Your task to perform on an android device: delete the emails in spam in the gmail app Image 0: 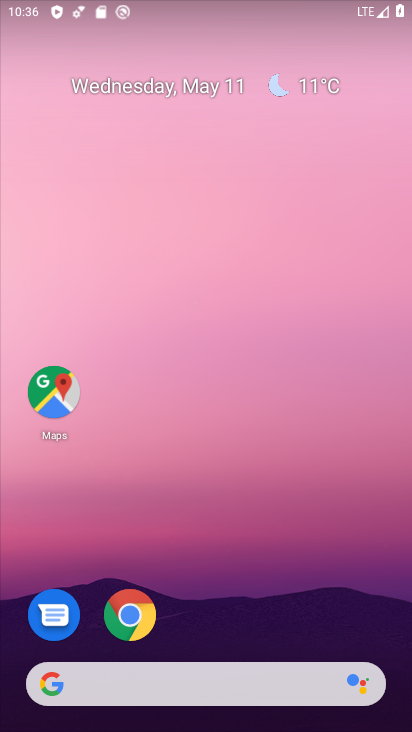
Step 0: drag from (293, 569) to (259, 90)
Your task to perform on an android device: delete the emails in spam in the gmail app Image 1: 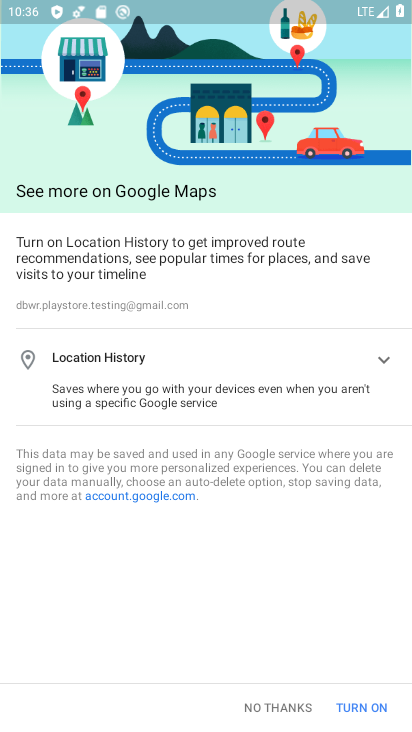
Step 1: press home button
Your task to perform on an android device: delete the emails in spam in the gmail app Image 2: 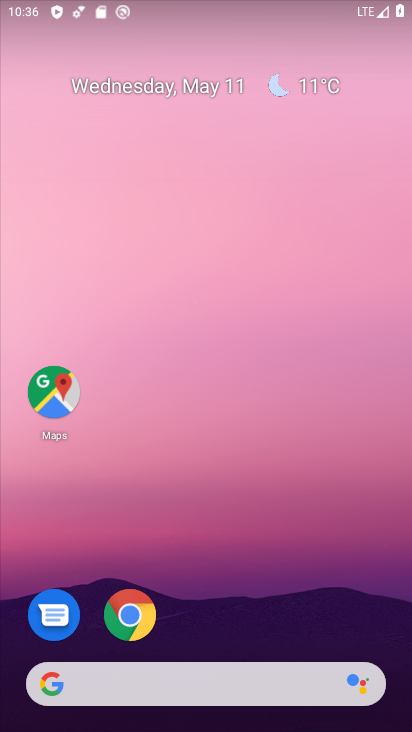
Step 2: drag from (248, 616) to (227, 109)
Your task to perform on an android device: delete the emails in spam in the gmail app Image 3: 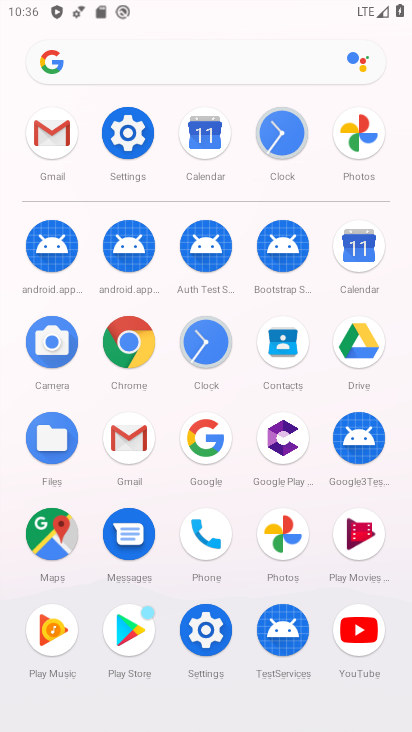
Step 3: click (133, 436)
Your task to perform on an android device: delete the emails in spam in the gmail app Image 4: 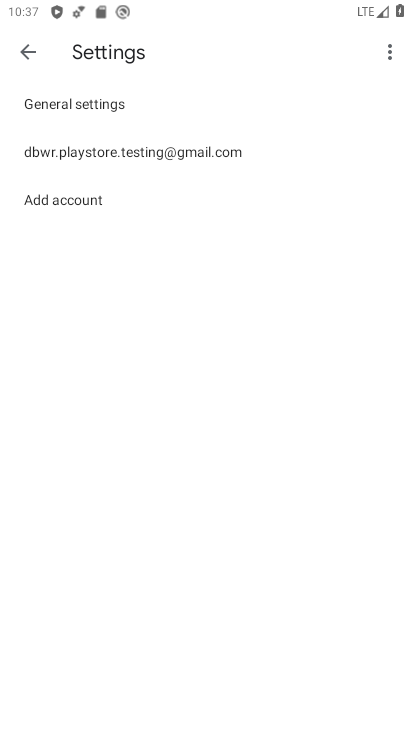
Step 4: click (30, 59)
Your task to perform on an android device: delete the emails in spam in the gmail app Image 5: 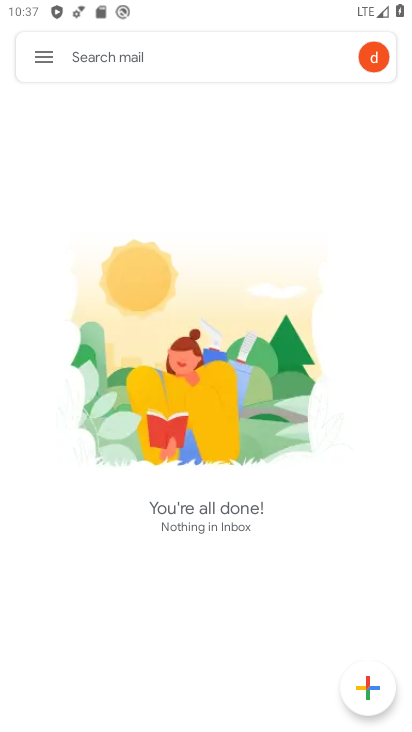
Step 5: click (38, 57)
Your task to perform on an android device: delete the emails in spam in the gmail app Image 6: 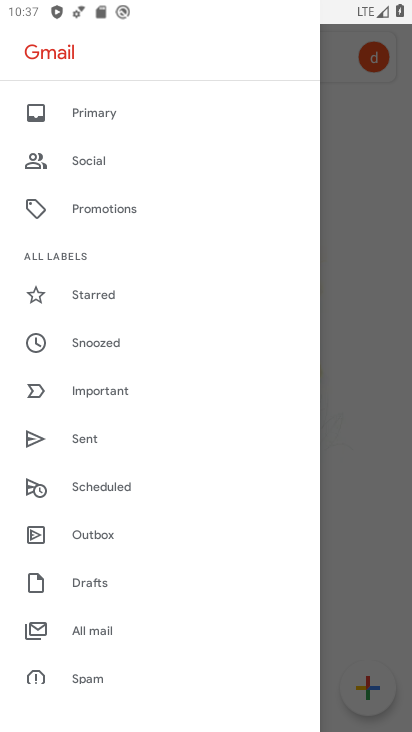
Step 6: click (60, 674)
Your task to perform on an android device: delete the emails in spam in the gmail app Image 7: 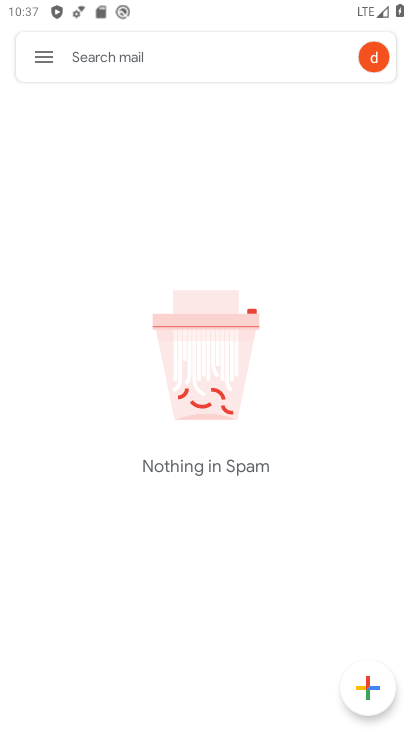
Step 7: task complete